Your task to perform on an android device: turn notification dots on Image 0: 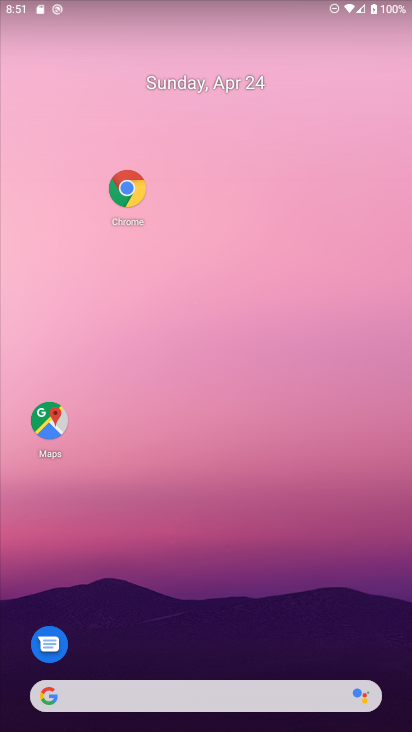
Step 0: drag from (207, 660) to (195, 173)
Your task to perform on an android device: turn notification dots on Image 1: 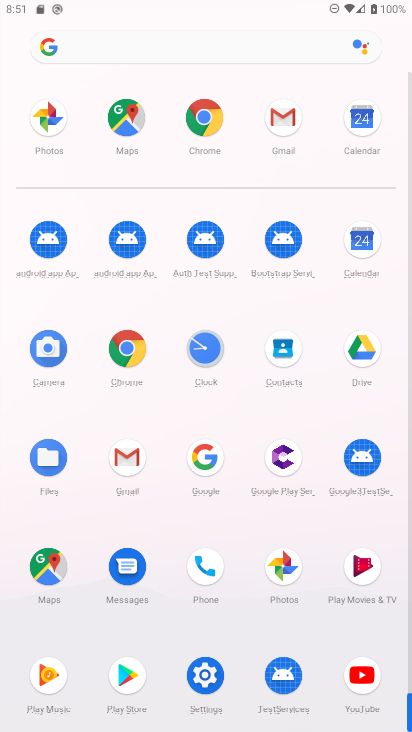
Step 1: click (205, 667)
Your task to perform on an android device: turn notification dots on Image 2: 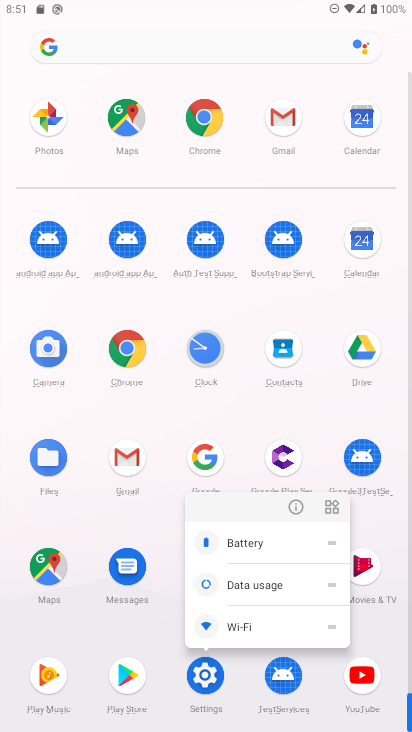
Step 2: click (299, 501)
Your task to perform on an android device: turn notification dots on Image 3: 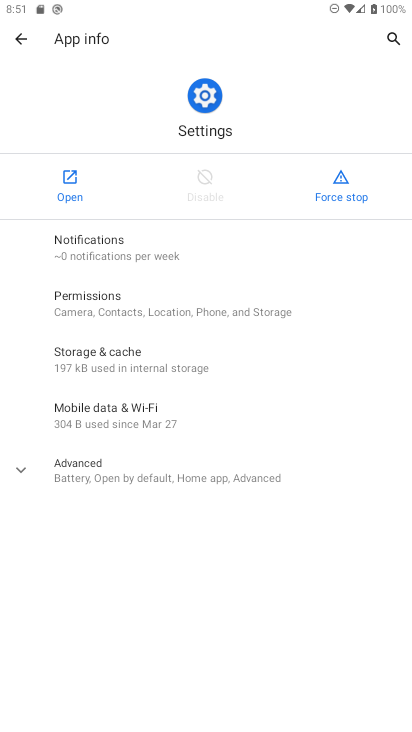
Step 3: click (72, 184)
Your task to perform on an android device: turn notification dots on Image 4: 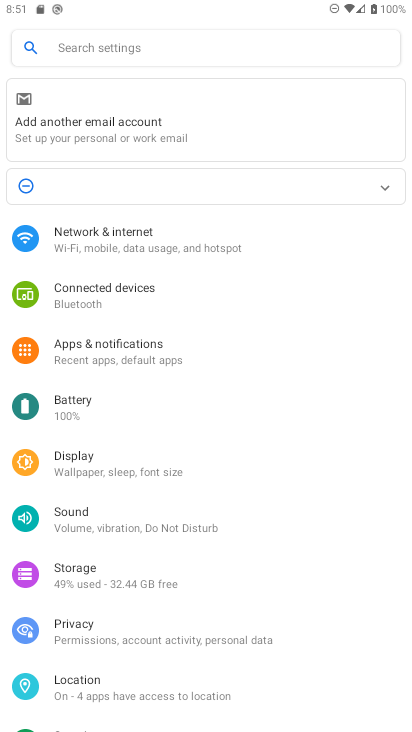
Step 4: click (129, 359)
Your task to perform on an android device: turn notification dots on Image 5: 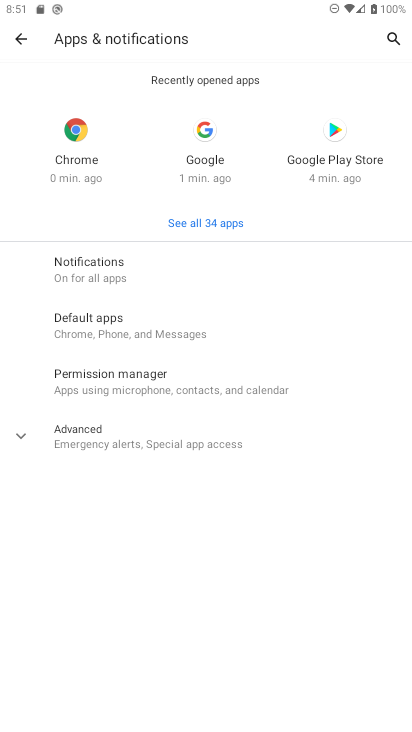
Step 5: click (185, 259)
Your task to perform on an android device: turn notification dots on Image 6: 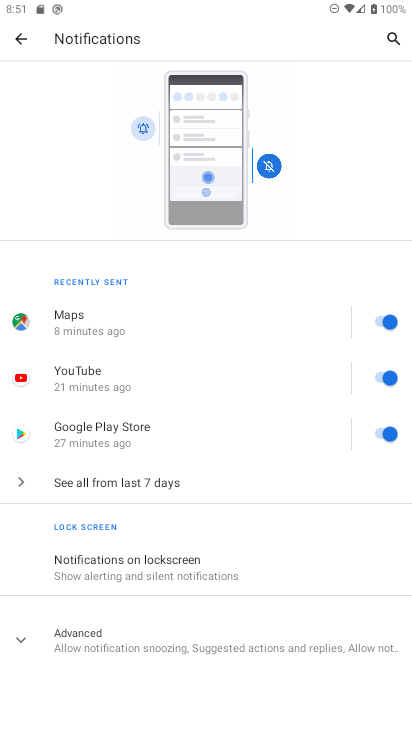
Step 6: drag from (206, 547) to (226, 202)
Your task to perform on an android device: turn notification dots on Image 7: 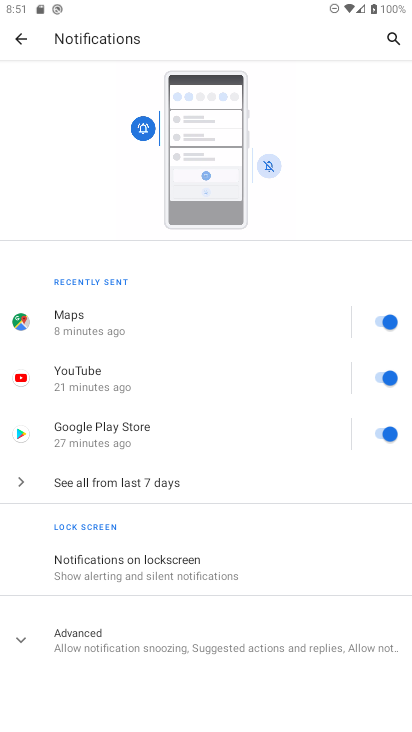
Step 7: click (110, 632)
Your task to perform on an android device: turn notification dots on Image 8: 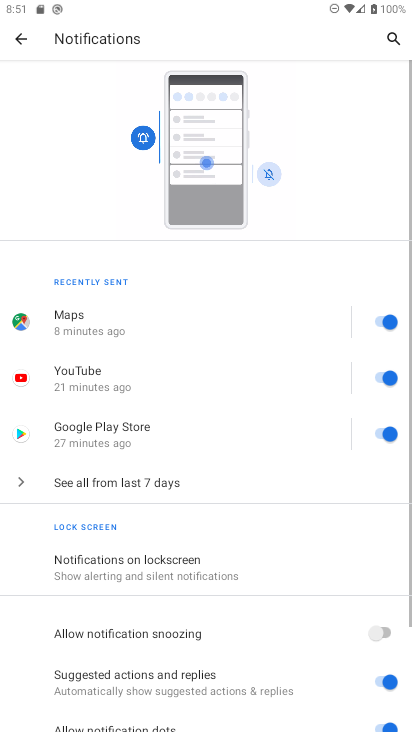
Step 8: task complete